Your task to perform on an android device: Go to eBay Image 0: 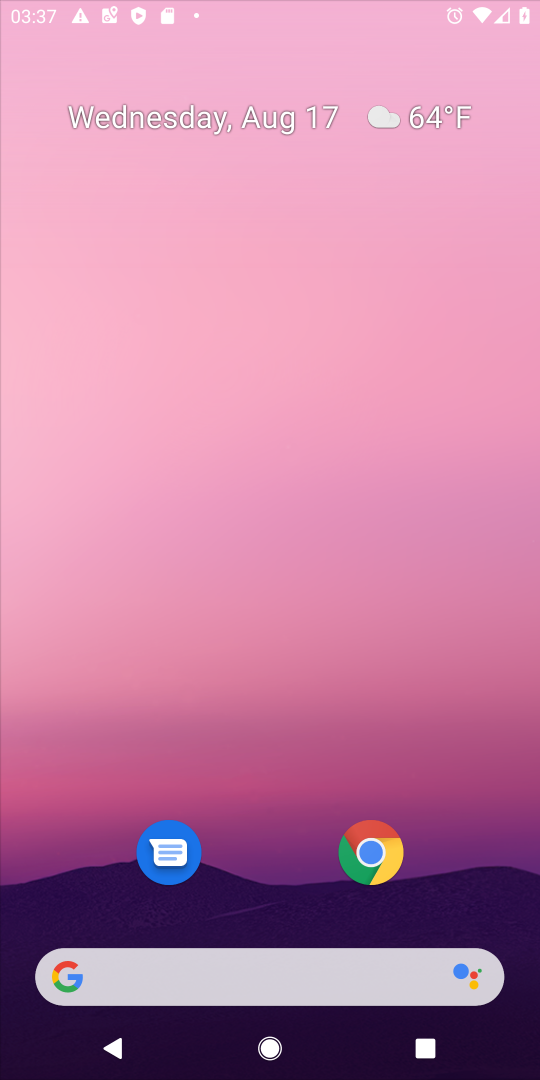
Step 0: press home button
Your task to perform on an android device: Go to eBay Image 1: 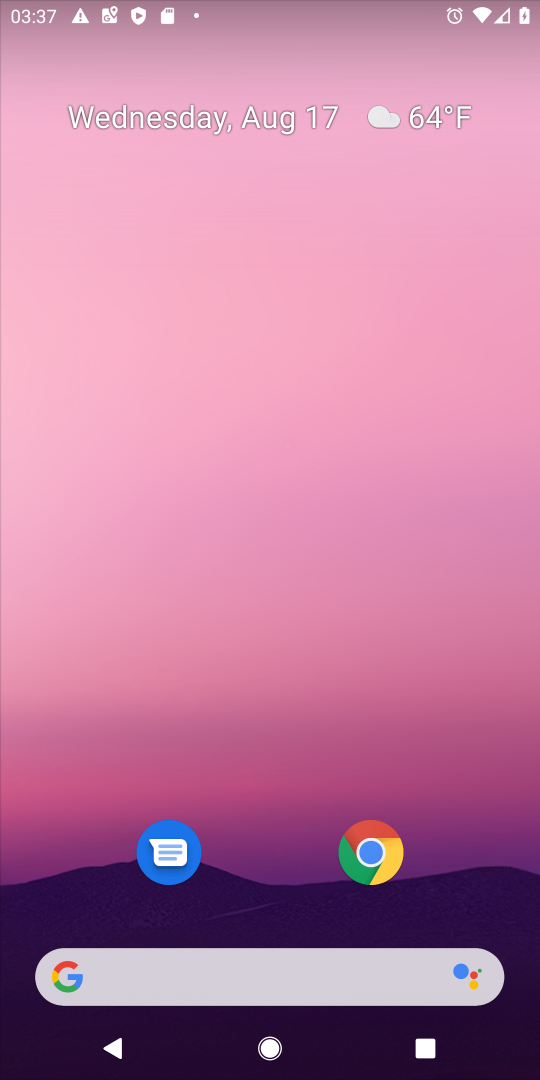
Step 1: press home button
Your task to perform on an android device: Go to eBay Image 2: 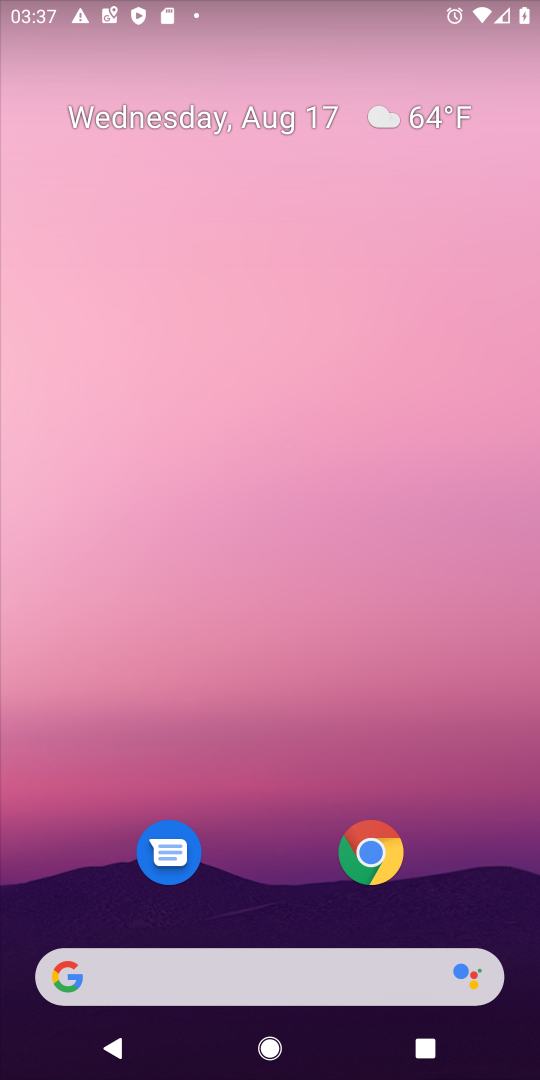
Step 2: drag from (278, 884) to (321, 109)
Your task to perform on an android device: Go to eBay Image 3: 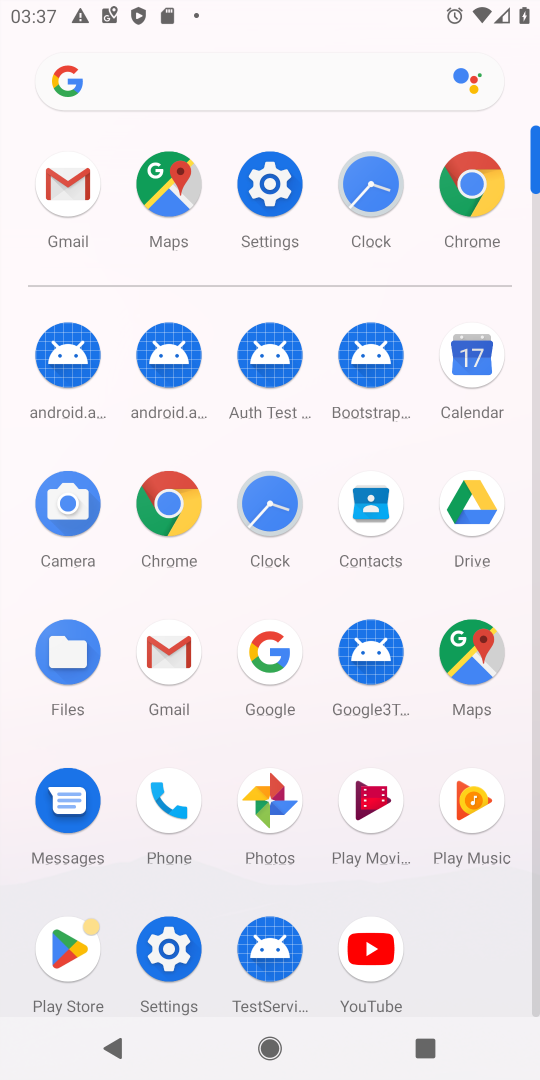
Step 3: click (174, 500)
Your task to perform on an android device: Go to eBay Image 4: 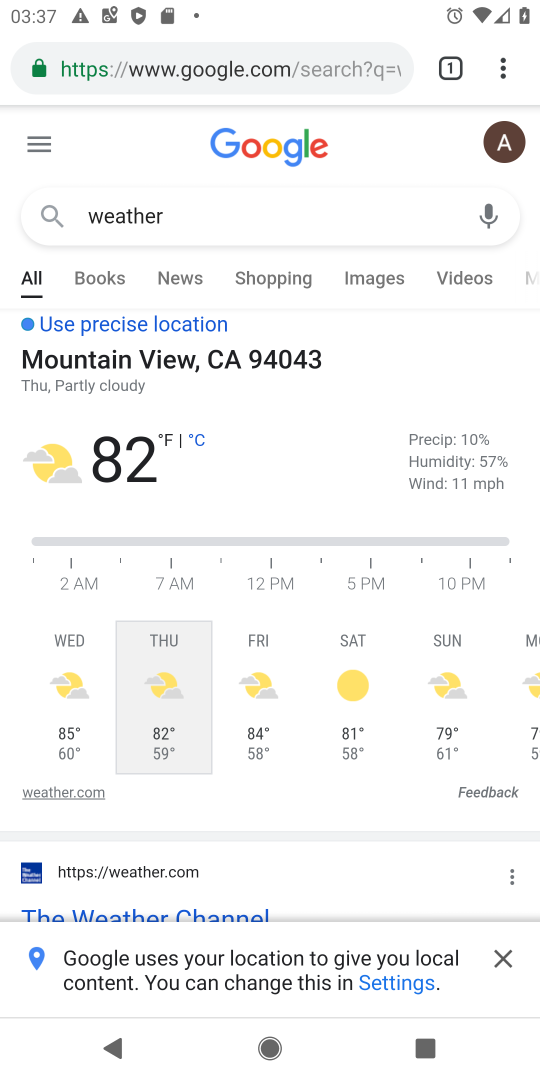
Step 4: click (266, 71)
Your task to perform on an android device: Go to eBay Image 5: 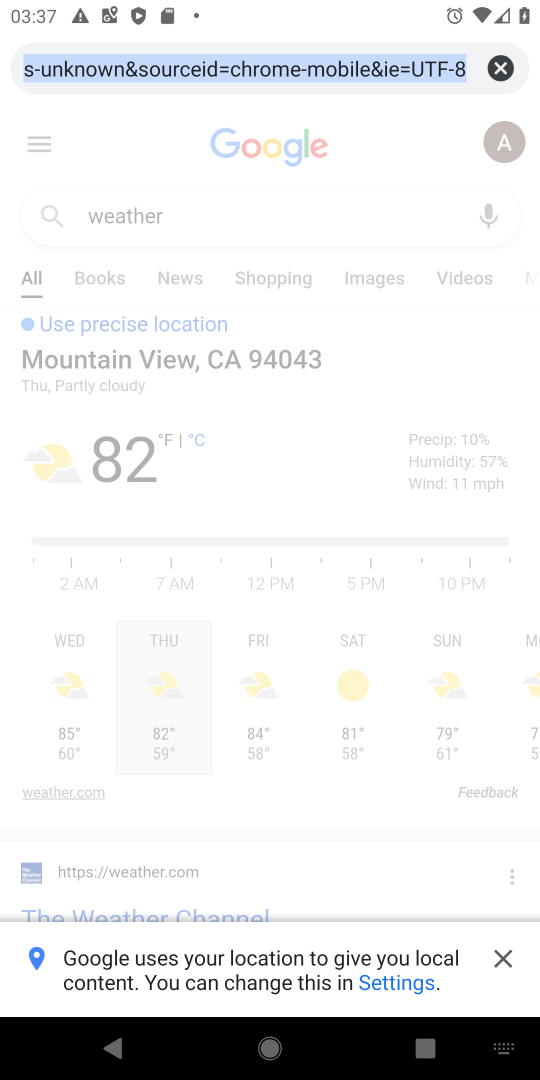
Step 5: type "ebay"
Your task to perform on an android device: Go to eBay Image 6: 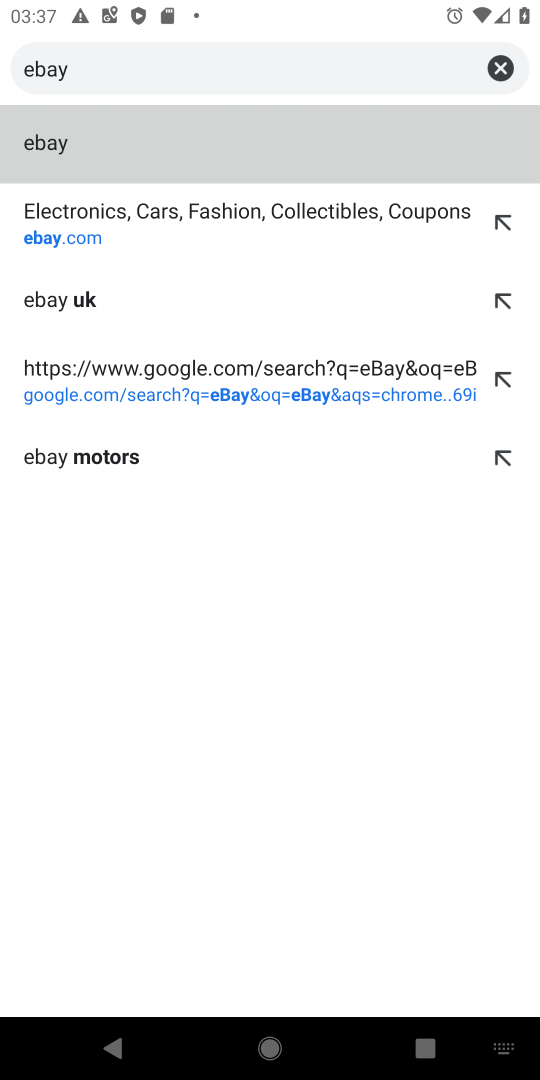
Step 6: click (54, 233)
Your task to perform on an android device: Go to eBay Image 7: 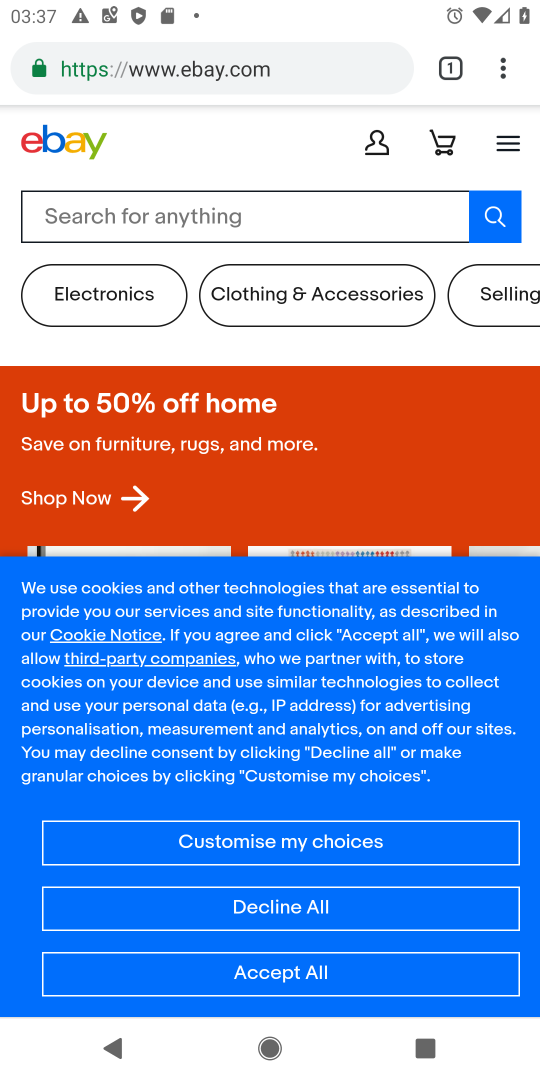
Step 7: task complete